Your task to perform on an android device: turn on the 12-hour format for clock Image 0: 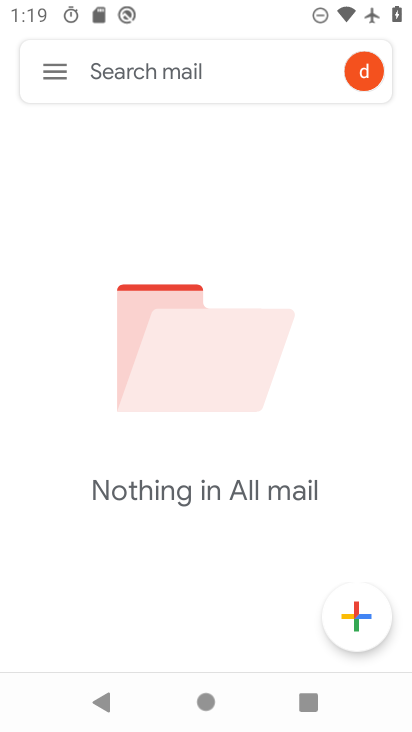
Step 0: press home button
Your task to perform on an android device: turn on the 12-hour format for clock Image 1: 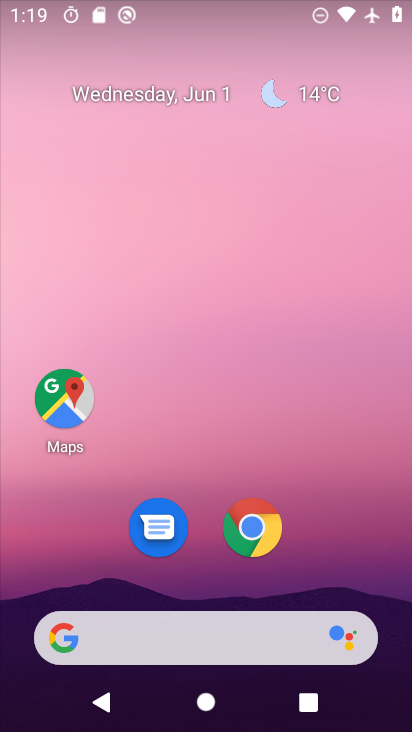
Step 1: drag from (196, 528) to (242, 77)
Your task to perform on an android device: turn on the 12-hour format for clock Image 2: 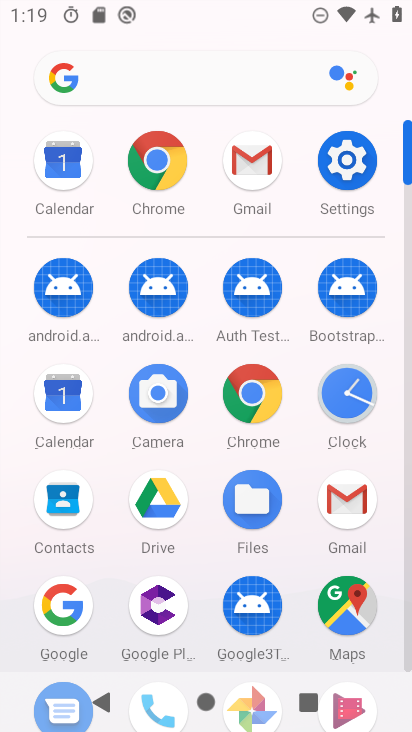
Step 2: click (347, 414)
Your task to perform on an android device: turn on the 12-hour format for clock Image 3: 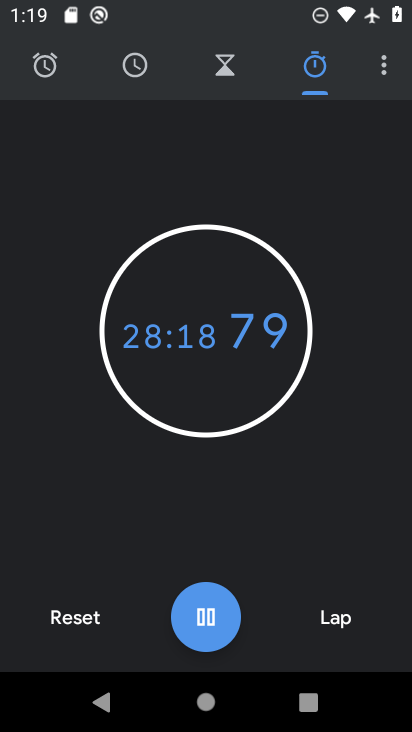
Step 3: click (384, 69)
Your task to perform on an android device: turn on the 12-hour format for clock Image 4: 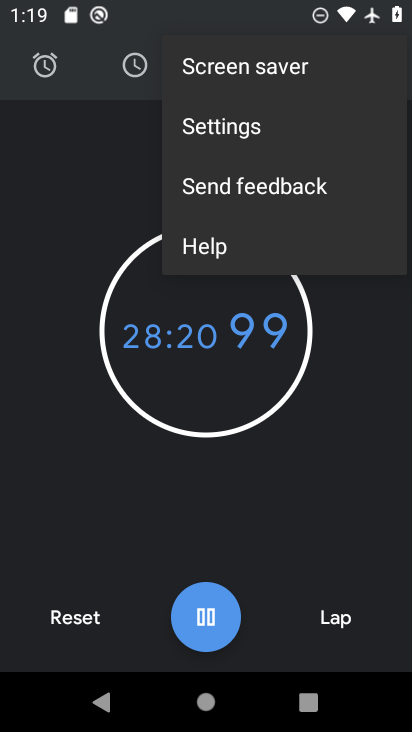
Step 4: click (255, 137)
Your task to perform on an android device: turn on the 12-hour format for clock Image 5: 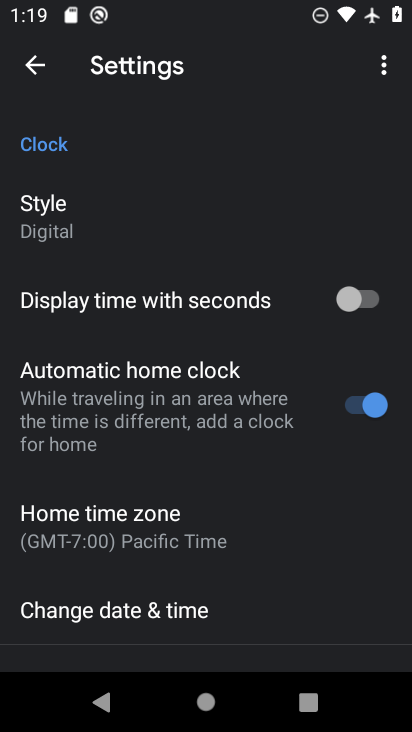
Step 5: click (116, 627)
Your task to perform on an android device: turn on the 12-hour format for clock Image 6: 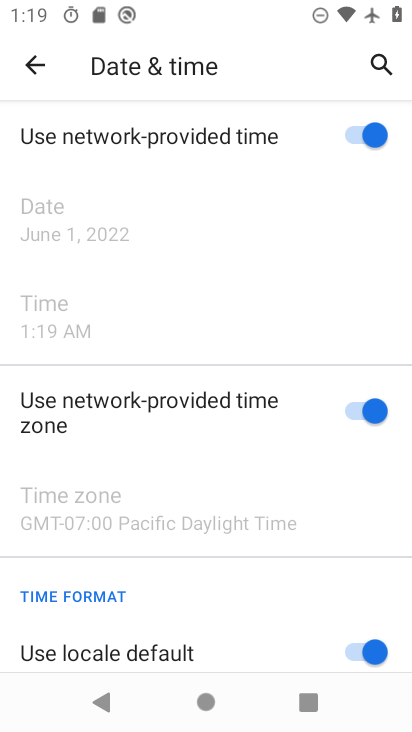
Step 6: task complete